Your task to perform on an android device: open app "Booking.com: Hotels and more" (install if not already installed) Image 0: 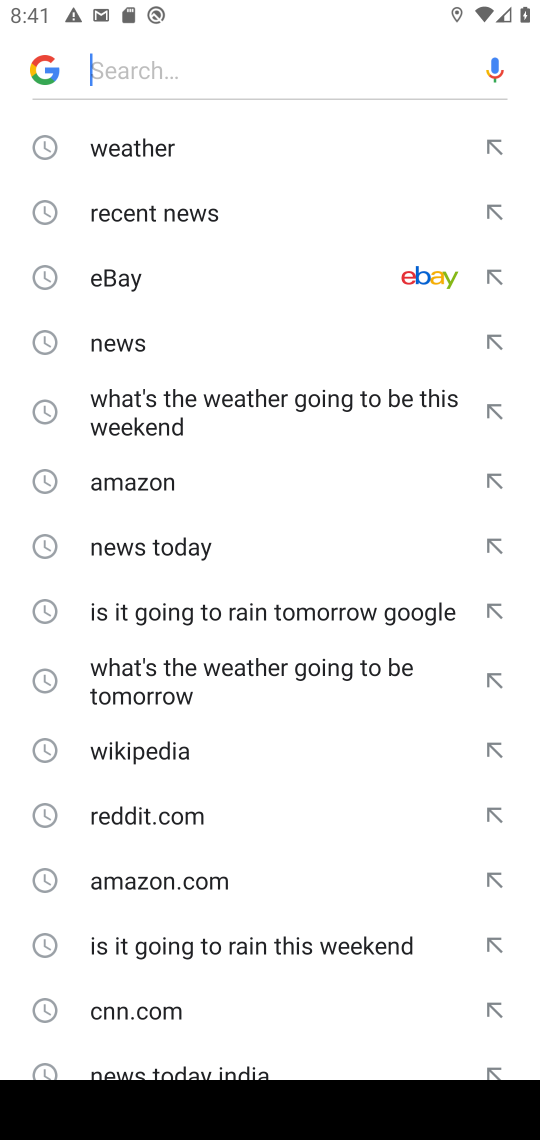
Step 0: press home button
Your task to perform on an android device: open app "Booking.com: Hotels and more" (install if not already installed) Image 1: 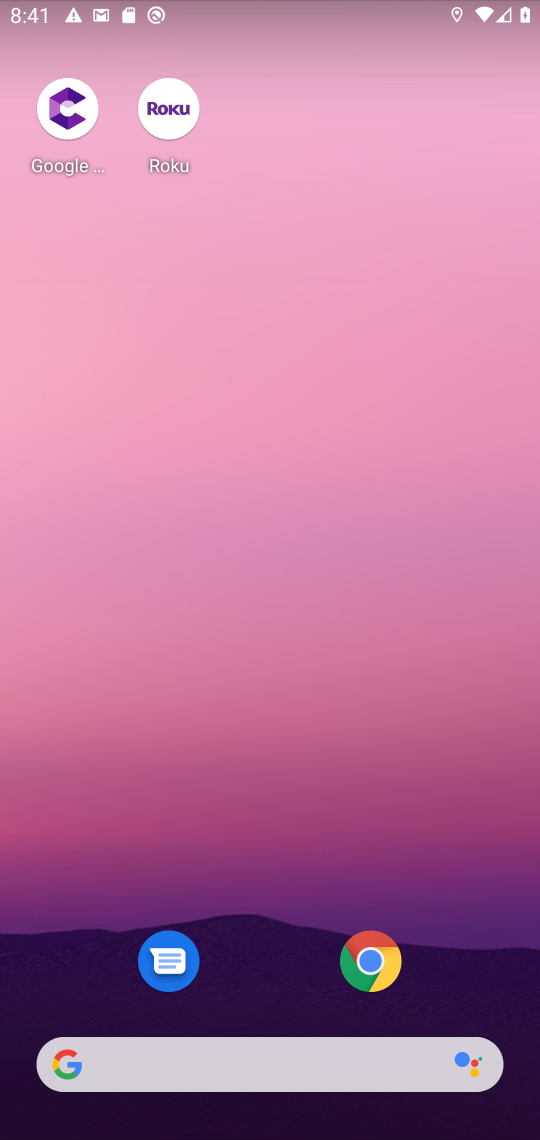
Step 1: press home button
Your task to perform on an android device: open app "Booking.com: Hotels and more" (install if not already installed) Image 2: 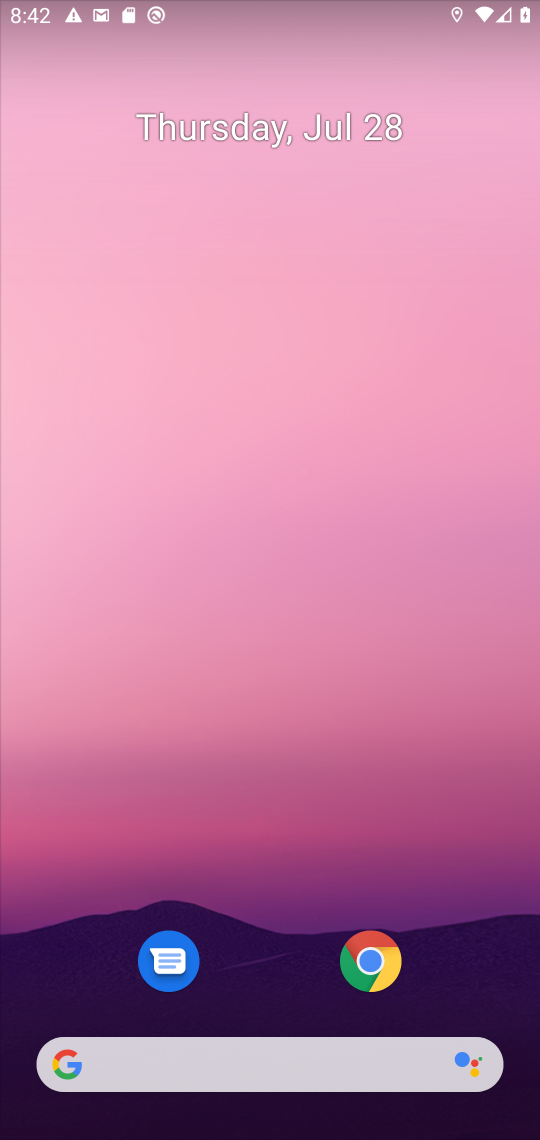
Step 2: drag from (303, 748) to (234, 88)
Your task to perform on an android device: open app "Booking.com: Hotels and more" (install if not already installed) Image 3: 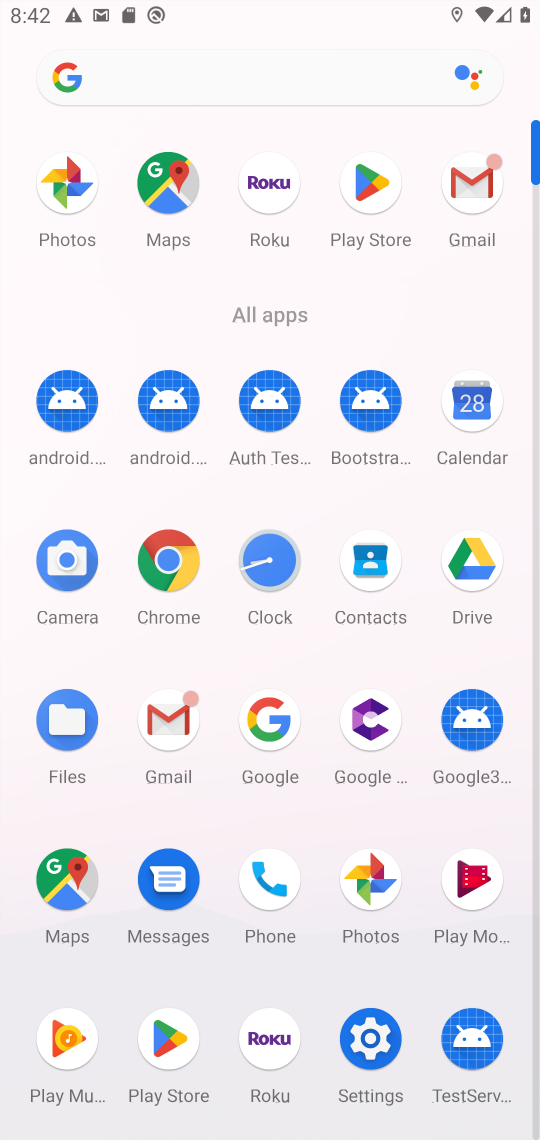
Step 3: click (385, 189)
Your task to perform on an android device: open app "Booking.com: Hotels and more" (install if not already installed) Image 4: 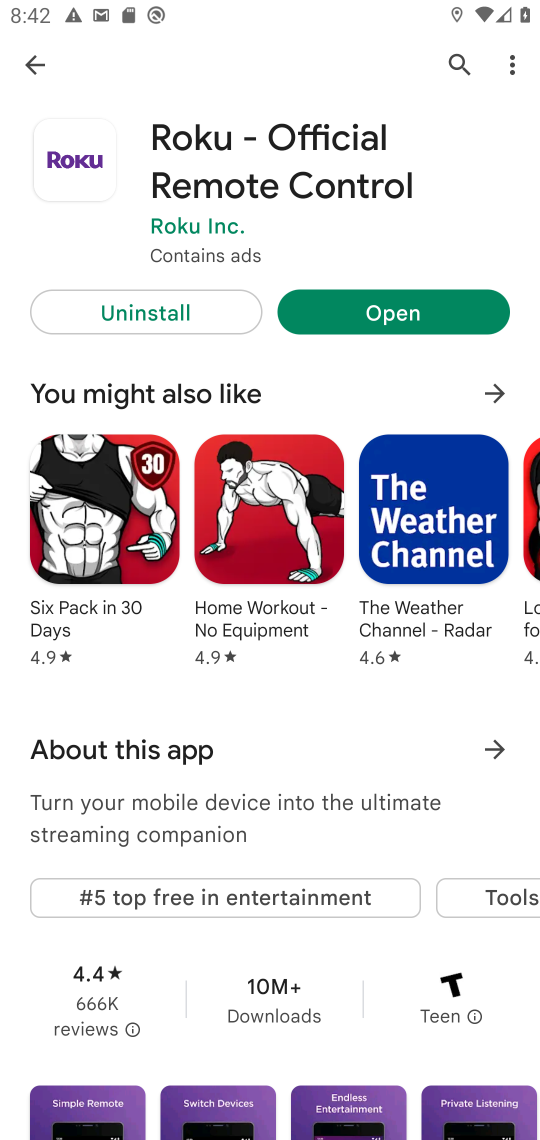
Step 4: click (454, 52)
Your task to perform on an android device: open app "Booking.com: Hotels and more" (install if not already installed) Image 5: 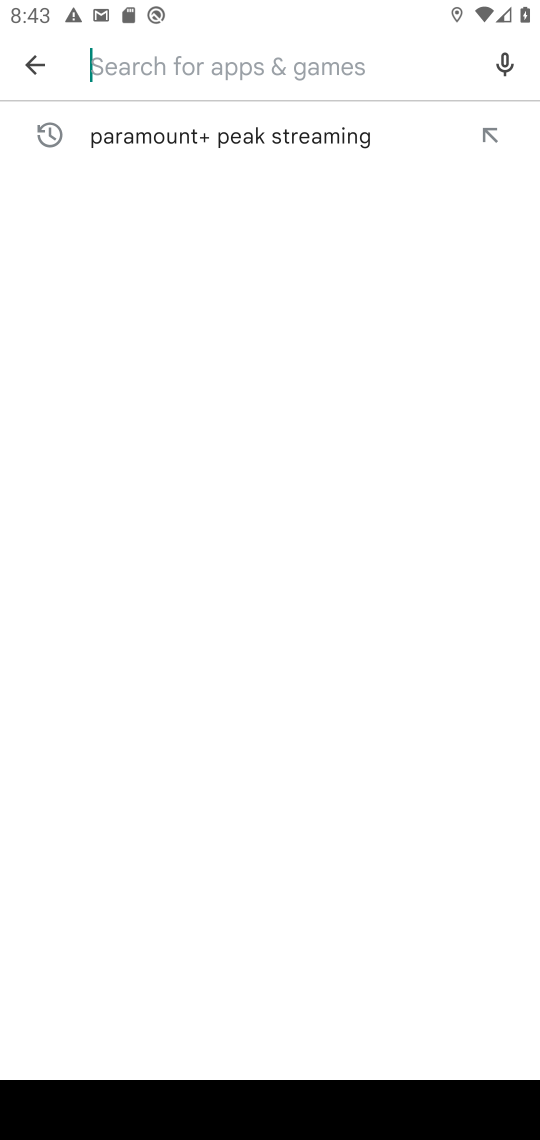
Step 5: click (458, 56)
Your task to perform on an android device: open app "Booking.com: Hotels and more" (install if not already installed) Image 6: 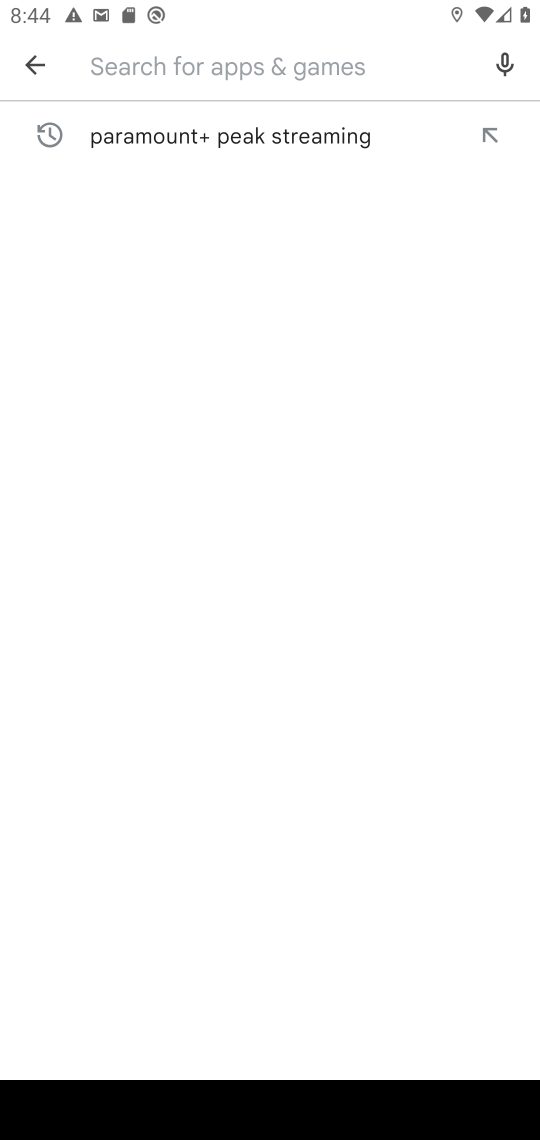
Step 6: type "Booking.com: Hotels and more"
Your task to perform on an android device: open app "Booking.com: Hotels and more" (install if not already installed) Image 7: 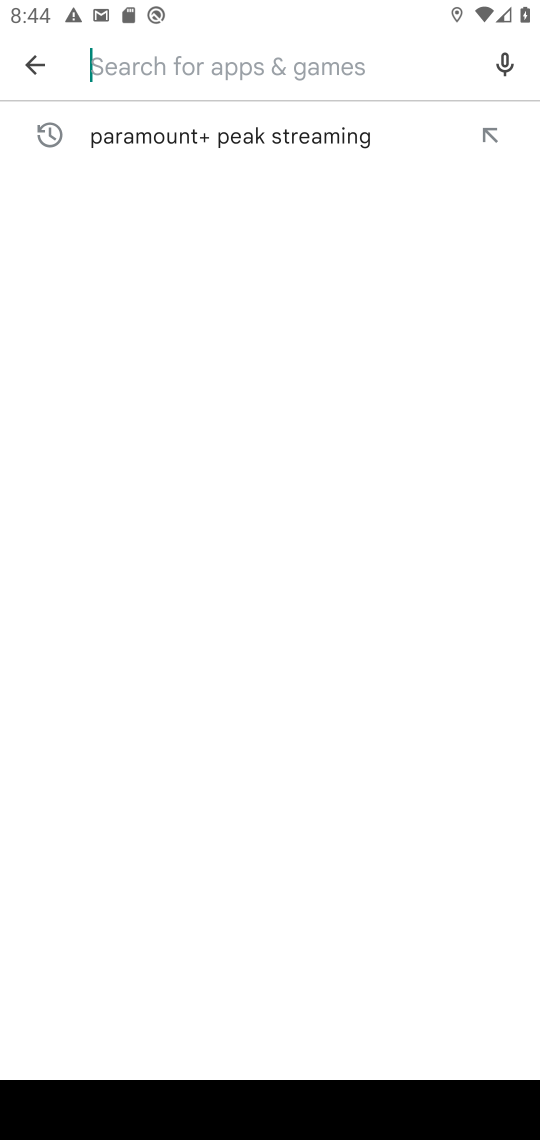
Step 7: click (230, 144)
Your task to perform on an android device: open app "Booking.com: Hotels and more" (install if not already installed) Image 8: 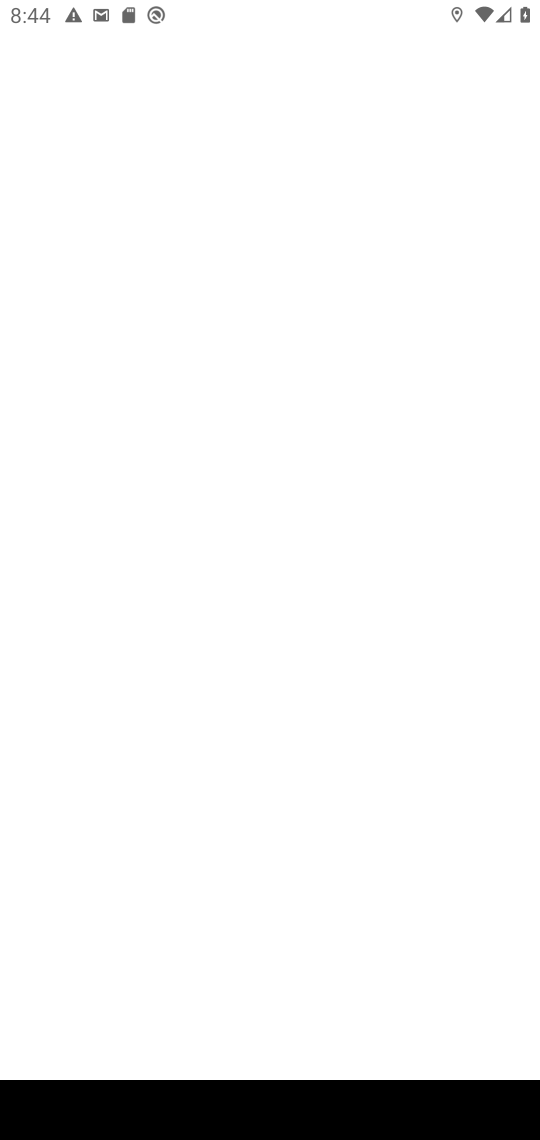
Step 8: click (217, 131)
Your task to perform on an android device: open app "Booking.com: Hotels and more" (install if not already installed) Image 9: 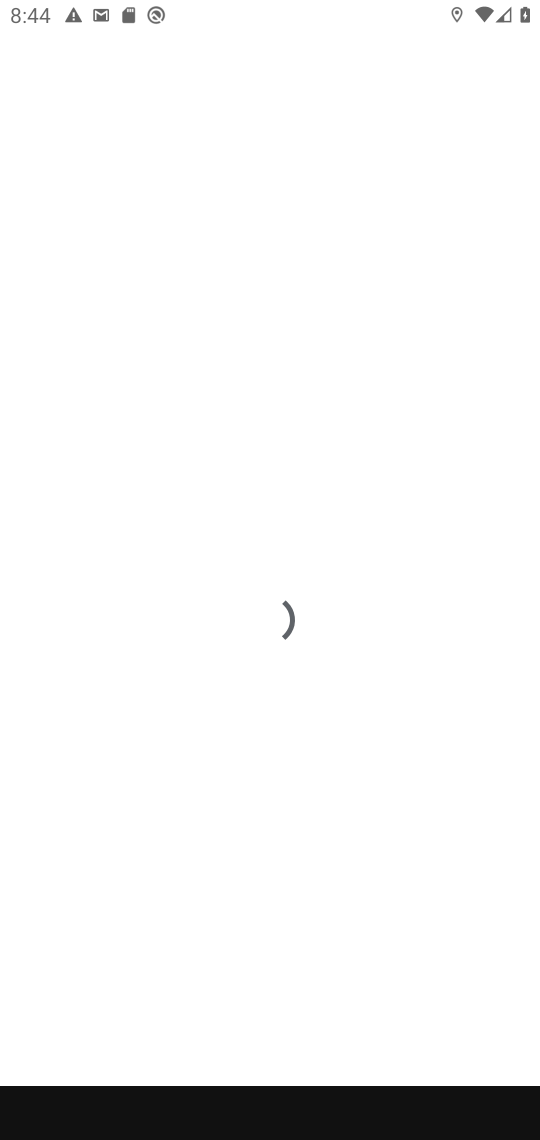
Step 9: click (217, 131)
Your task to perform on an android device: open app "Booking.com: Hotels and more" (install if not already installed) Image 10: 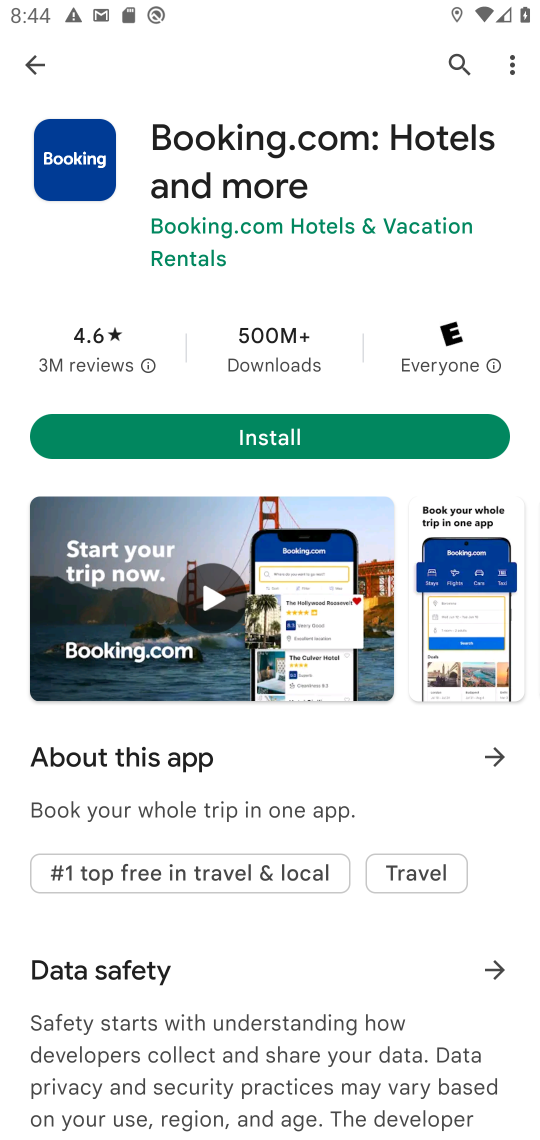
Step 10: click (274, 424)
Your task to perform on an android device: open app "Booking.com: Hotels and more" (install if not already installed) Image 11: 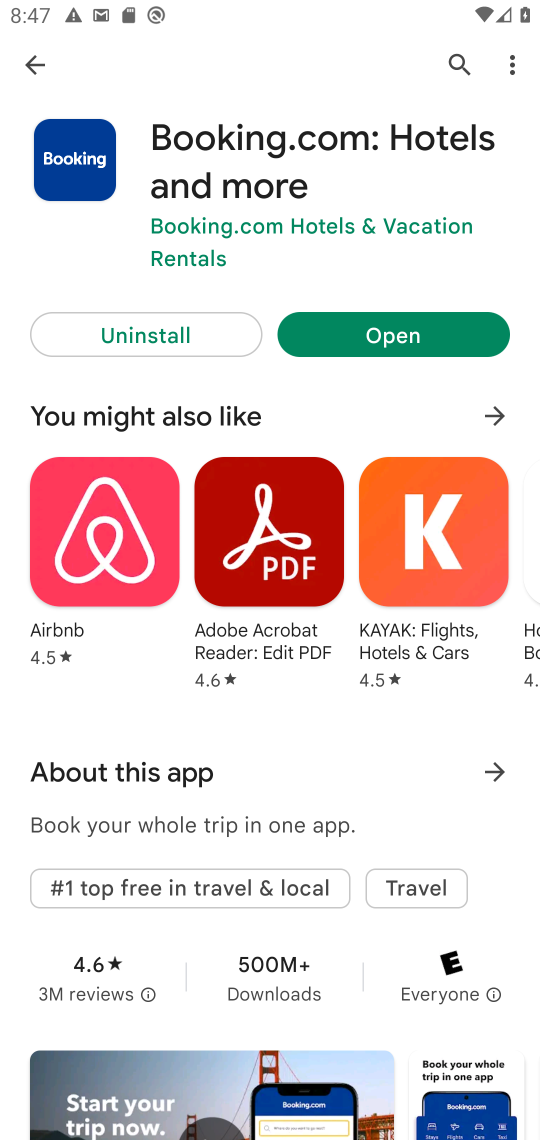
Step 11: click (430, 331)
Your task to perform on an android device: open app "Booking.com: Hotels and more" (install if not already installed) Image 12: 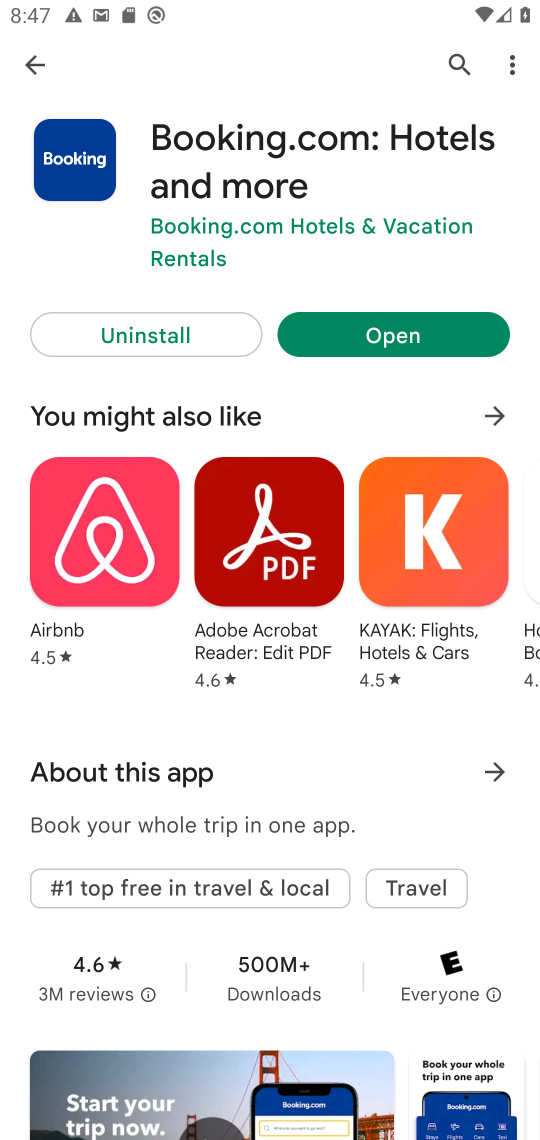
Step 12: click (430, 331)
Your task to perform on an android device: open app "Booking.com: Hotels and more" (install if not already installed) Image 13: 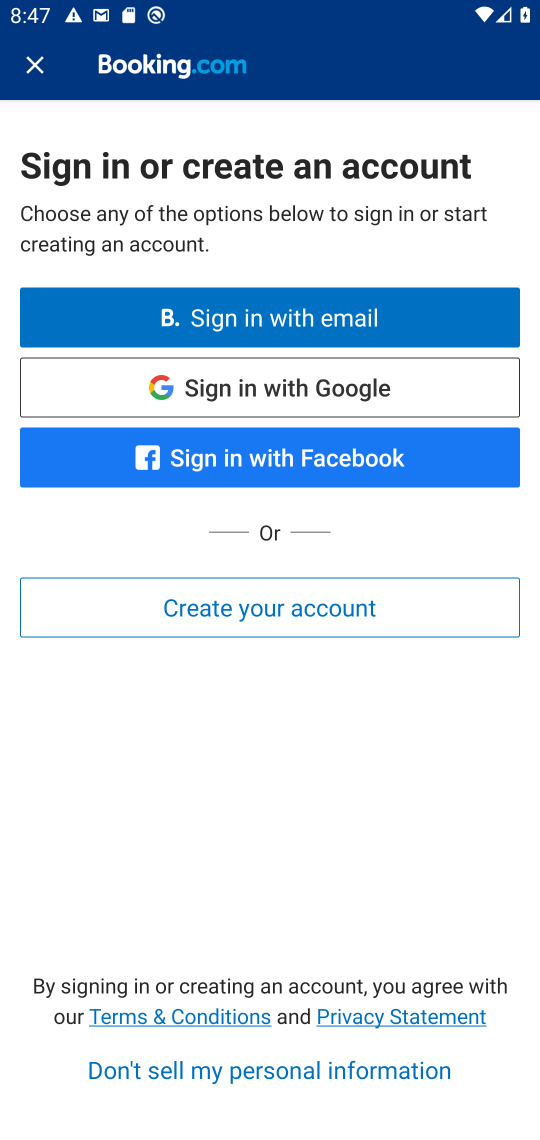
Step 13: task complete